Your task to perform on an android device: turn on the 24-hour format for clock Image 0: 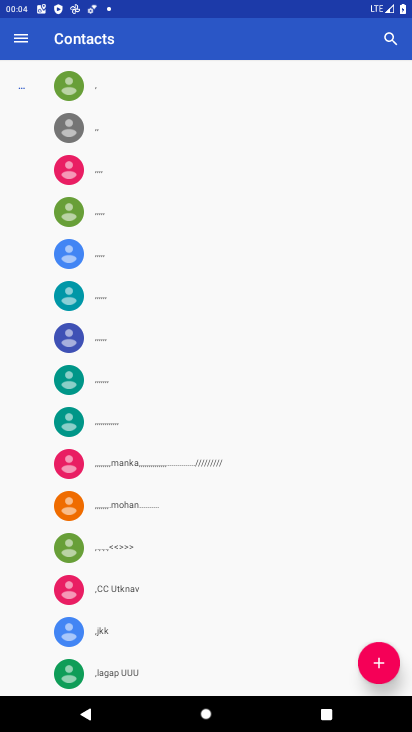
Step 0: press home button
Your task to perform on an android device: turn on the 24-hour format for clock Image 1: 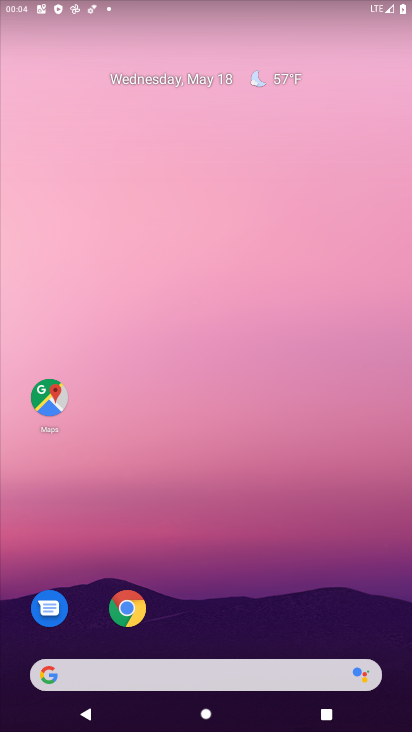
Step 1: drag from (266, 532) to (213, 86)
Your task to perform on an android device: turn on the 24-hour format for clock Image 2: 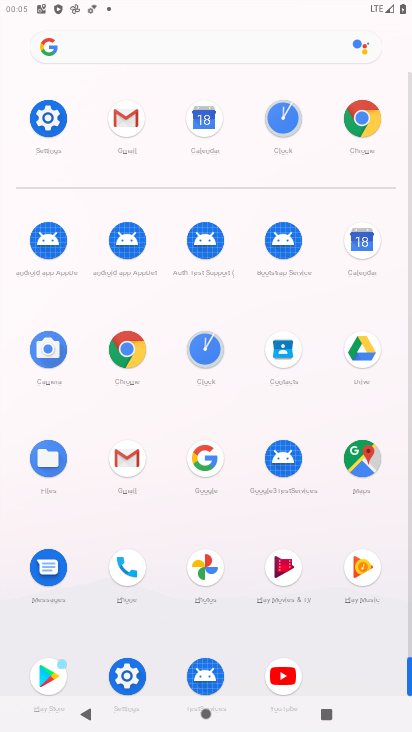
Step 2: click (277, 116)
Your task to perform on an android device: turn on the 24-hour format for clock Image 3: 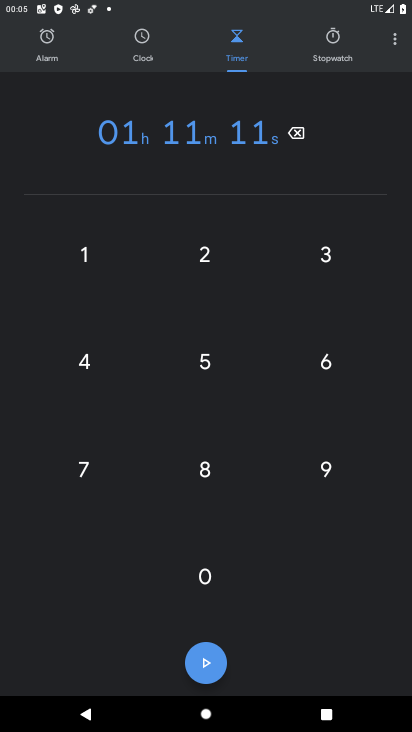
Step 3: click (389, 36)
Your task to perform on an android device: turn on the 24-hour format for clock Image 4: 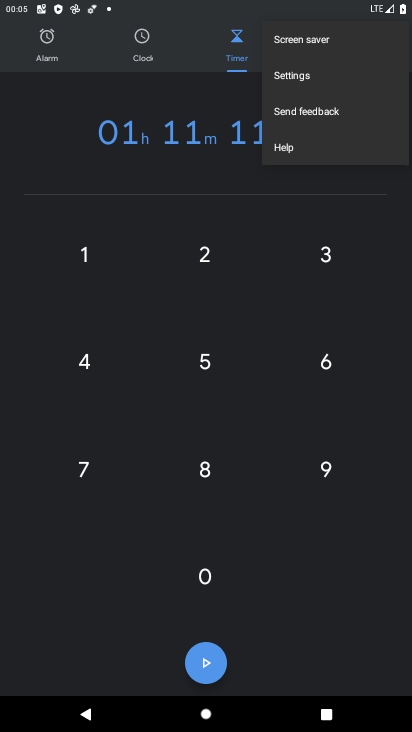
Step 4: click (276, 75)
Your task to perform on an android device: turn on the 24-hour format for clock Image 5: 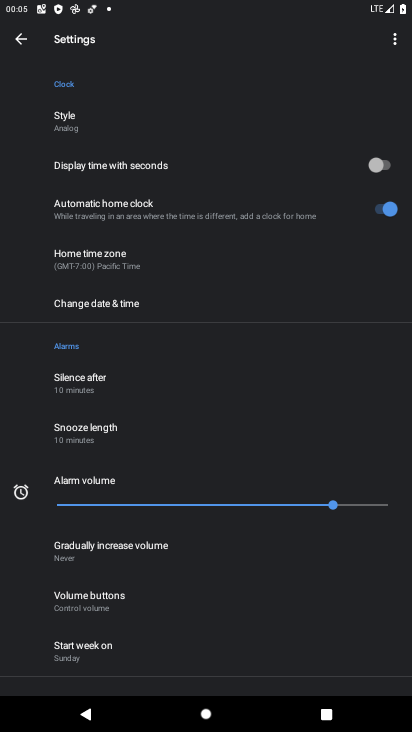
Step 5: click (100, 296)
Your task to perform on an android device: turn on the 24-hour format for clock Image 6: 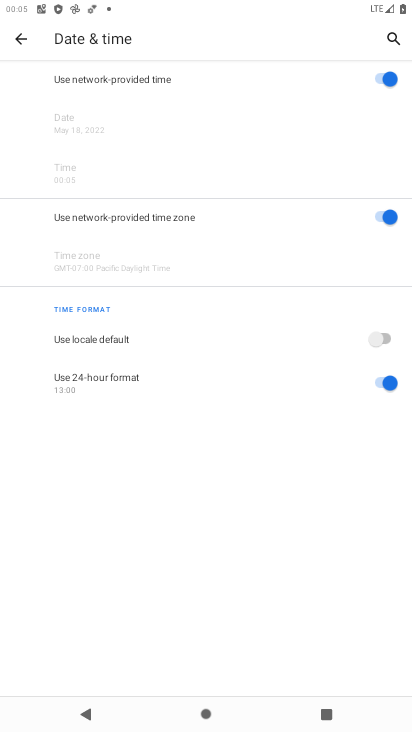
Step 6: task complete